Your task to perform on an android device: Open Google Chrome Image 0: 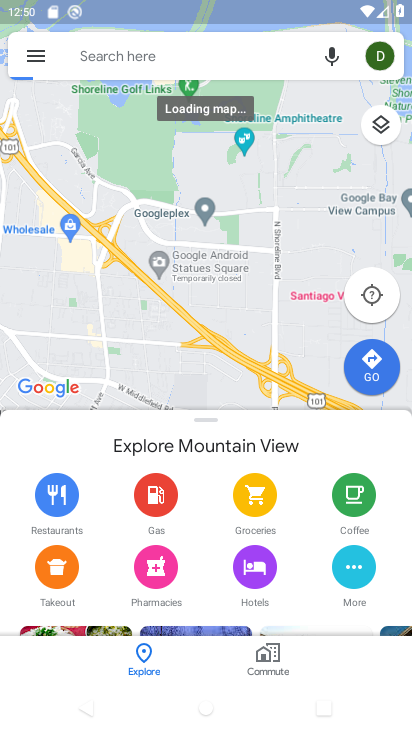
Step 0: press home button
Your task to perform on an android device: Open Google Chrome Image 1: 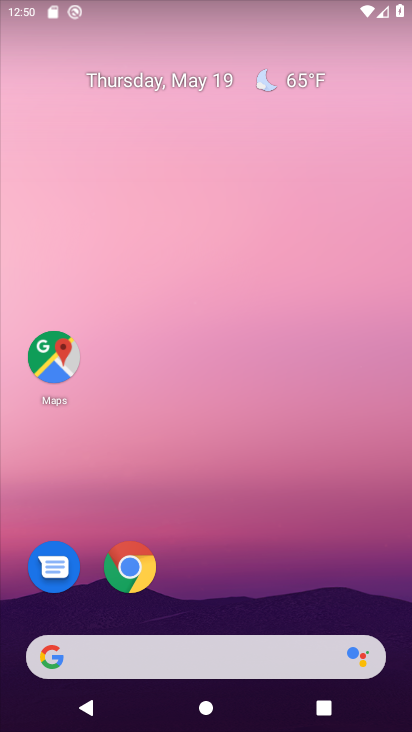
Step 1: drag from (300, 580) to (299, 190)
Your task to perform on an android device: Open Google Chrome Image 2: 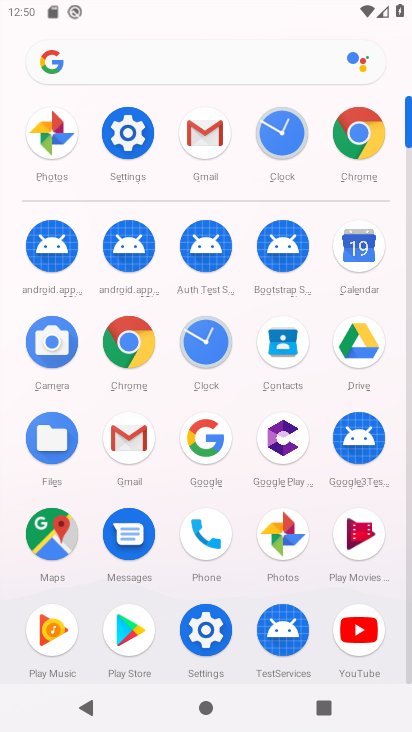
Step 2: click (372, 137)
Your task to perform on an android device: Open Google Chrome Image 3: 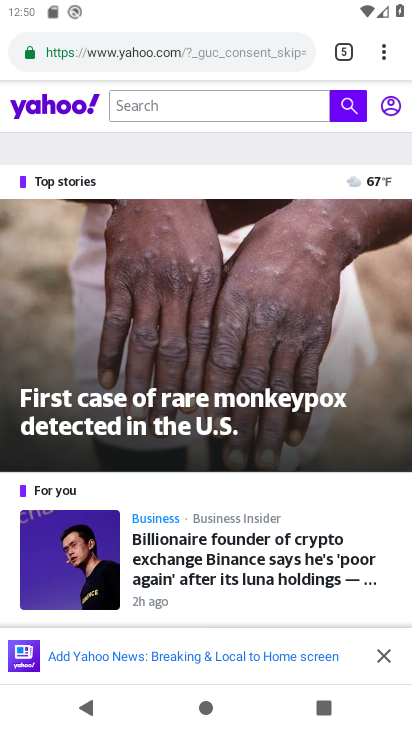
Step 3: task complete